Your task to perform on an android device: Search for sushi restaurants on Maps Image 0: 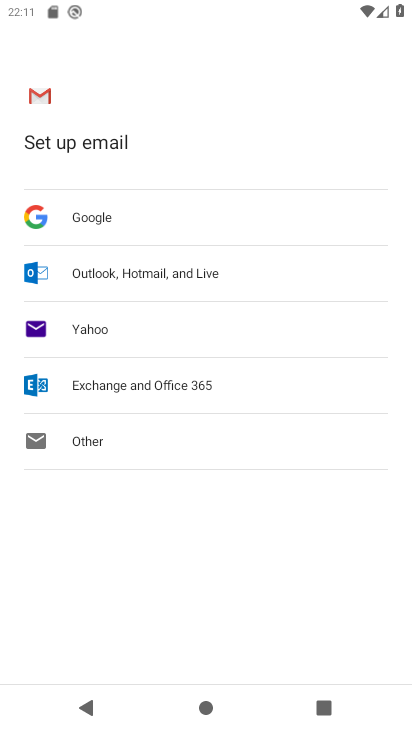
Step 0: press home button
Your task to perform on an android device: Search for sushi restaurants on Maps Image 1: 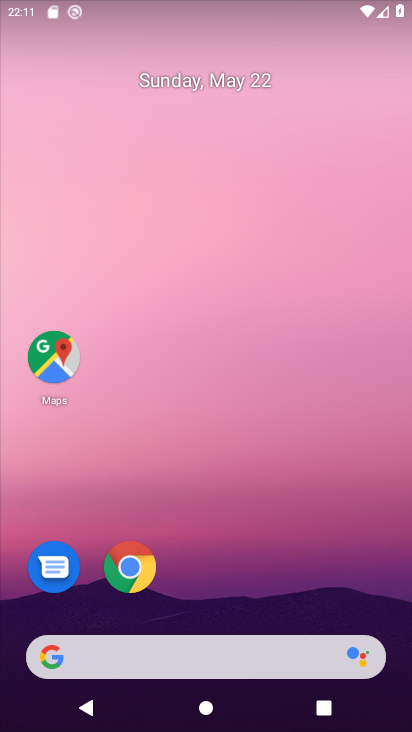
Step 1: click (50, 360)
Your task to perform on an android device: Search for sushi restaurants on Maps Image 2: 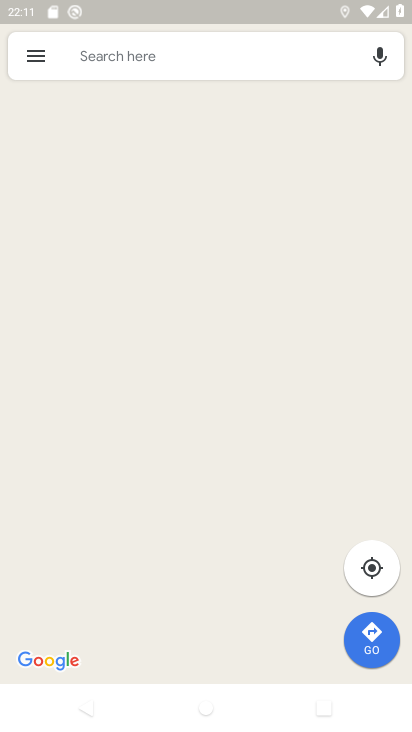
Step 2: click (103, 49)
Your task to perform on an android device: Search for sushi restaurants on Maps Image 3: 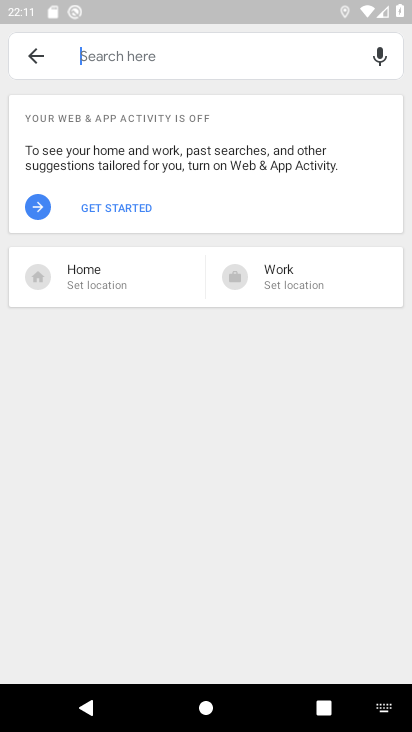
Step 3: type "sushi"
Your task to perform on an android device: Search for sushi restaurants on Maps Image 4: 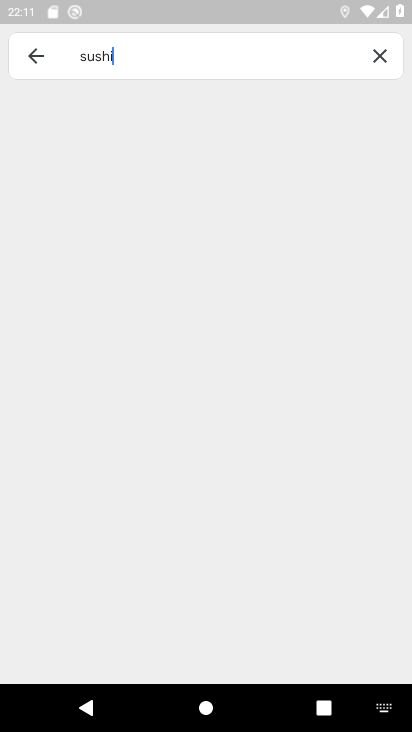
Step 4: drag from (129, 165) to (16, 707)
Your task to perform on an android device: Search for sushi restaurants on Maps Image 5: 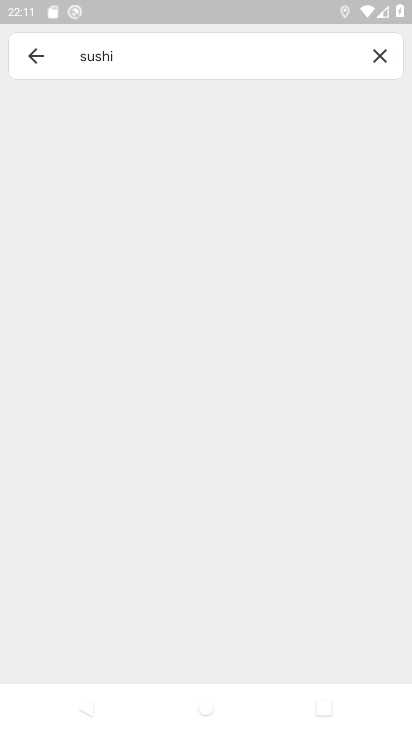
Step 5: click (383, 61)
Your task to perform on an android device: Search for sushi restaurants on Maps Image 6: 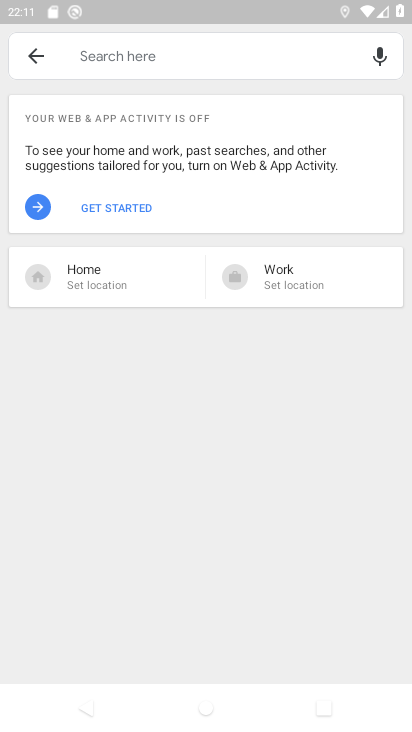
Step 6: click (108, 47)
Your task to perform on an android device: Search for sushi restaurants on Maps Image 7: 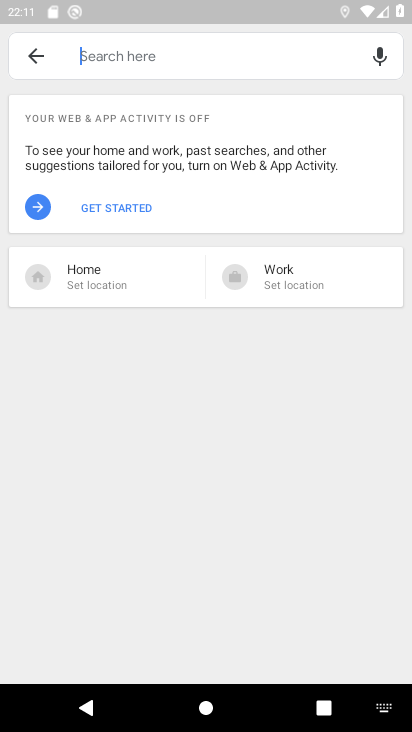
Step 7: type "sushi"
Your task to perform on an android device: Search for sushi restaurants on Maps Image 8: 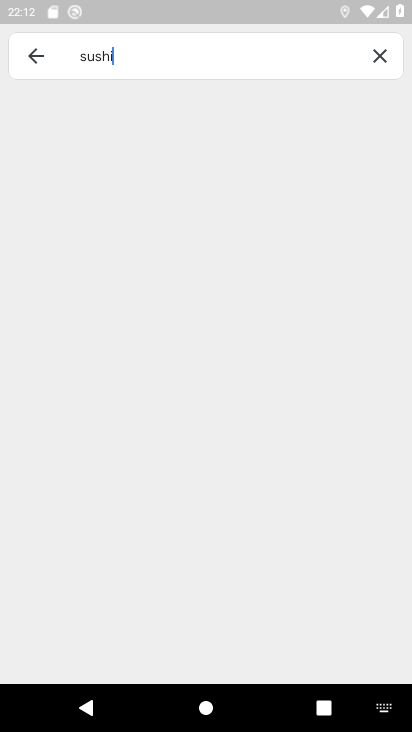
Step 8: task complete